Your task to perform on an android device: delete location history Image 0: 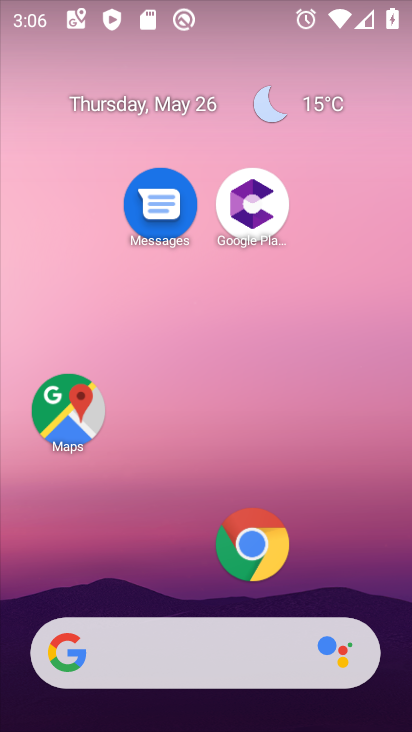
Step 0: click (64, 415)
Your task to perform on an android device: delete location history Image 1: 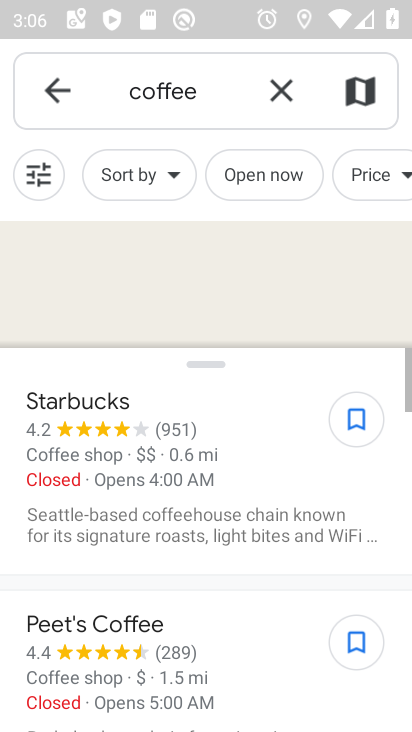
Step 1: click (47, 81)
Your task to perform on an android device: delete location history Image 2: 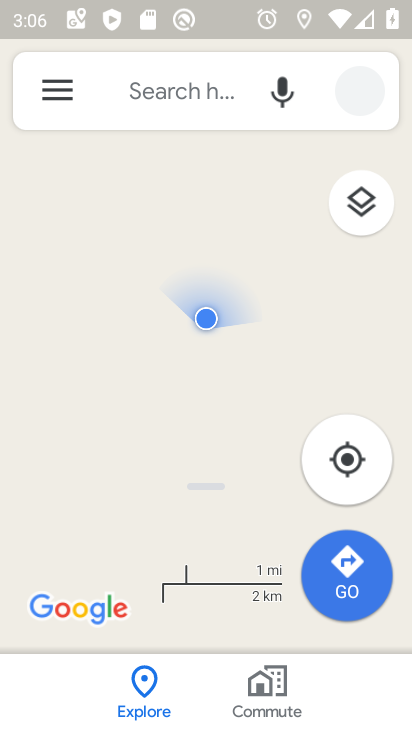
Step 2: click (47, 81)
Your task to perform on an android device: delete location history Image 3: 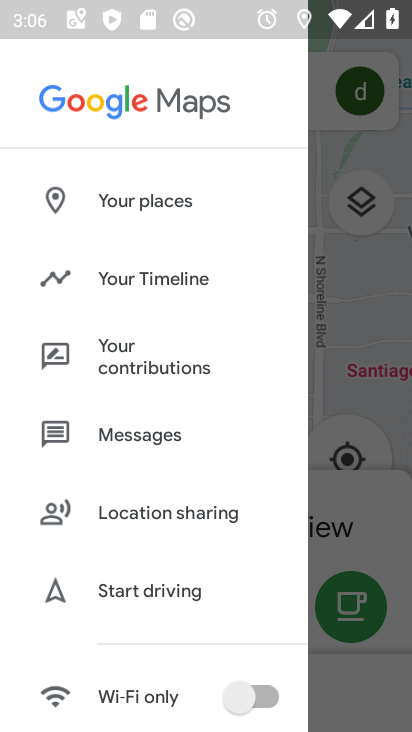
Step 3: click (152, 260)
Your task to perform on an android device: delete location history Image 4: 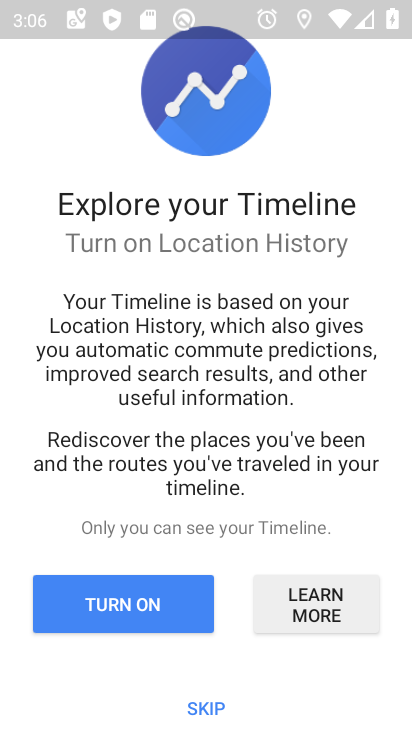
Step 4: click (123, 608)
Your task to perform on an android device: delete location history Image 5: 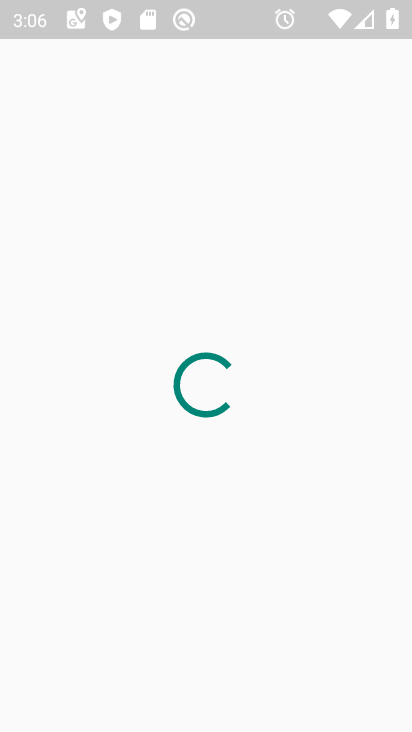
Step 5: click (387, 85)
Your task to perform on an android device: delete location history Image 6: 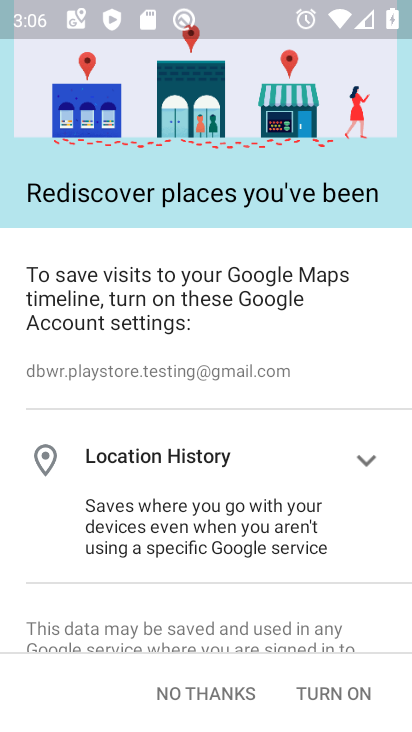
Step 6: click (358, 692)
Your task to perform on an android device: delete location history Image 7: 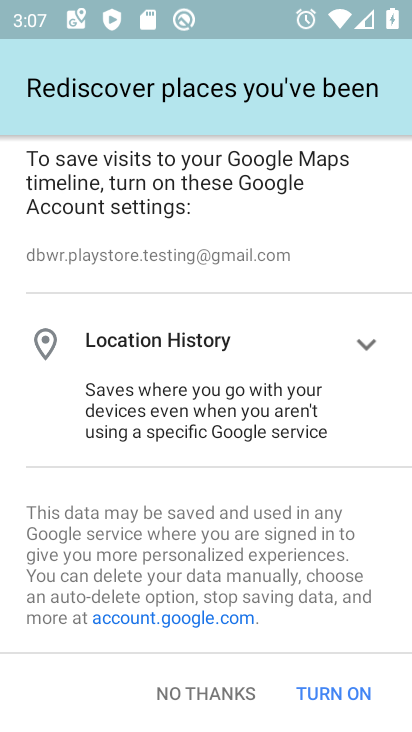
Step 7: click (327, 693)
Your task to perform on an android device: delete location history Image 8: 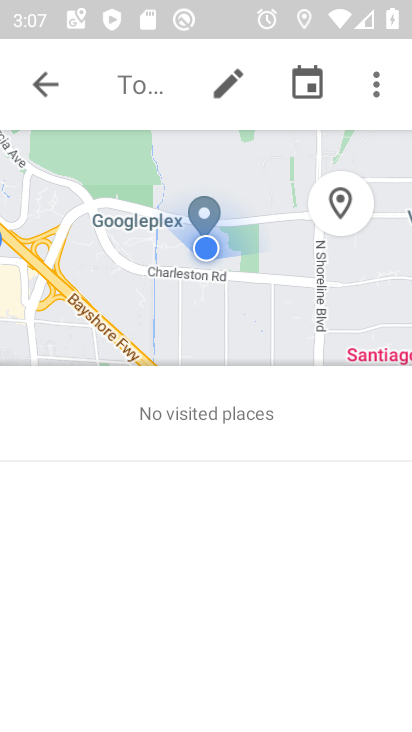
Step 8: click (386, 81)
Your task to perform on an android device: delete location history Image 9: 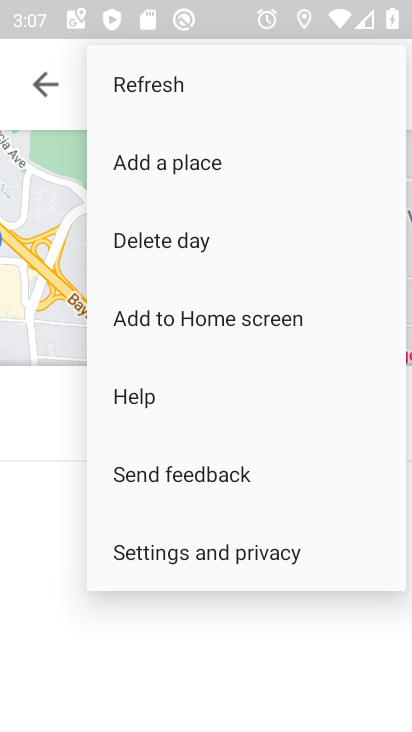
Step 9: click (188, 567)
Your task to perform on an android device: delete location history Image 10: 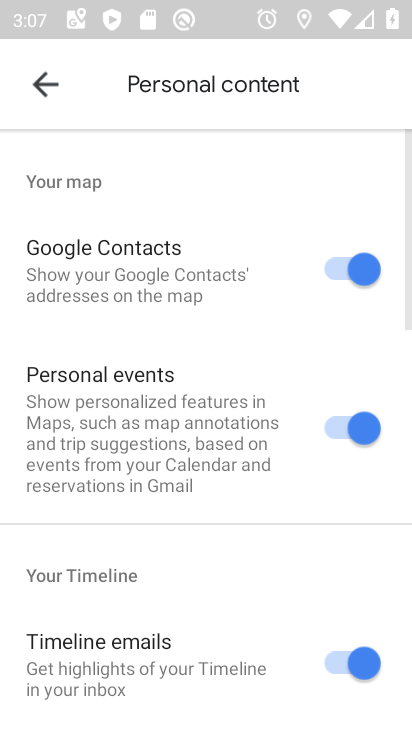
Step 10: drag from (188, 567) to (212, 201)
Your task to perform on an android device: delete location history Image 11: 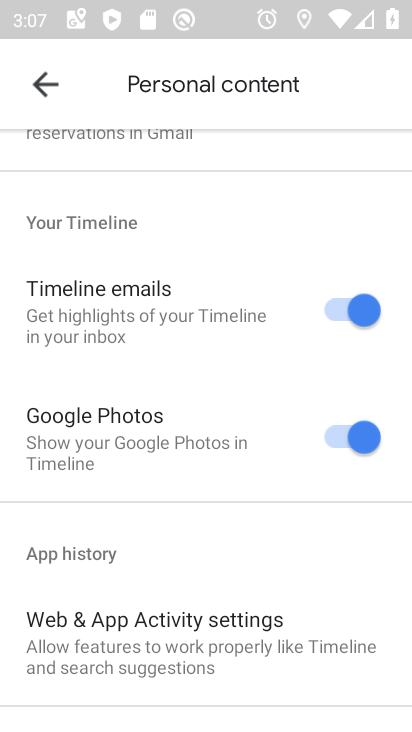
Step 11: drag from (105, 671) to (127, 196)
Your task to perform on an android device: delete location history Image 12: 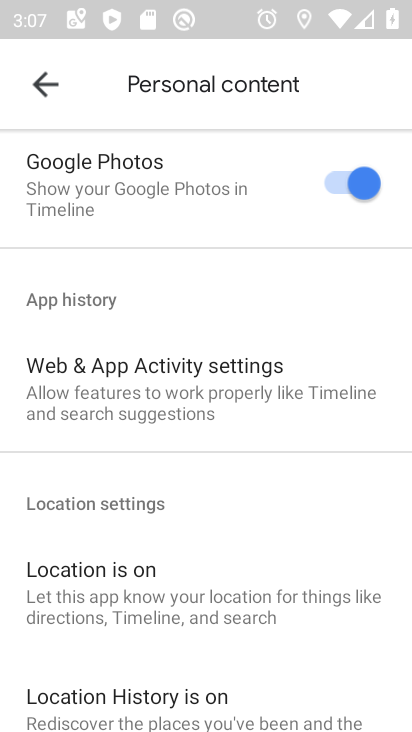
Step 12: drag from (133, 615) to (164, 161)
Your task to perform on an android device: delete location history Image 13: 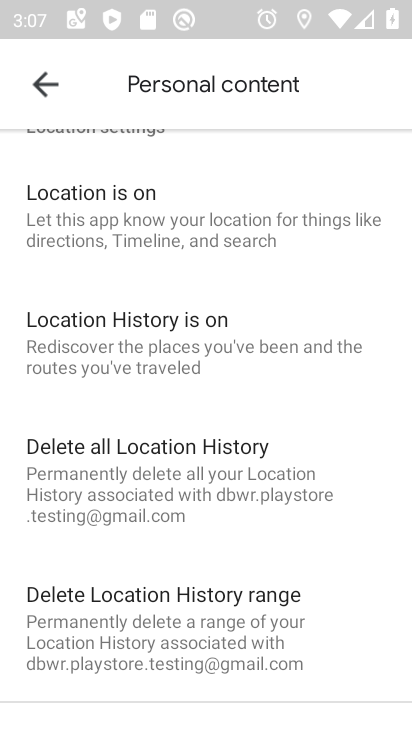
Step 13: click (112, 469)
Your task to perform on an android device: delete location history Image 14: 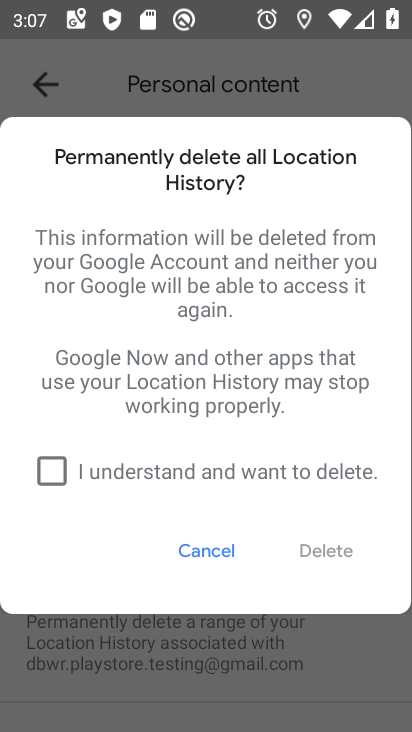
Step 14: click (69, 467)
Your task to perform on an android device: delete location history Image 15: 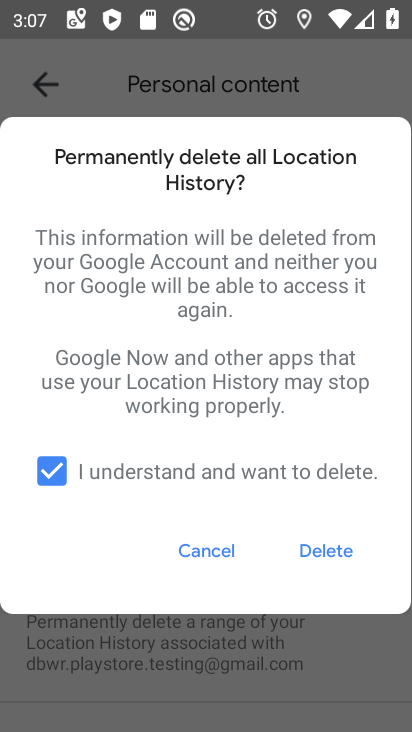
Step 15: click (308, 561)
Your task to perform on an android device: delete location history Image 16: 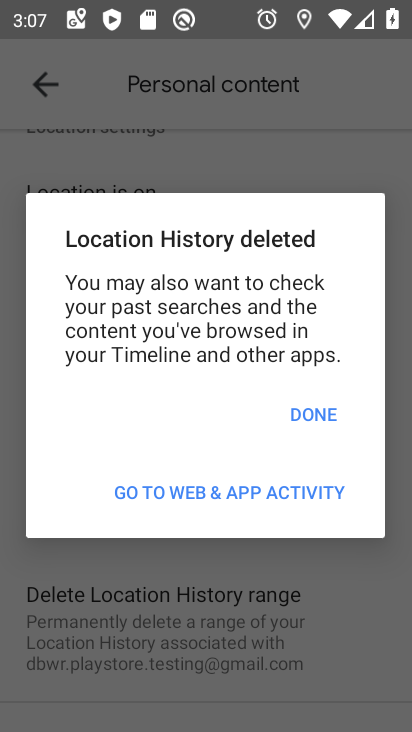
Step 16: click (306, 410)
Your task to perform on an android device: delete location history Image 17: 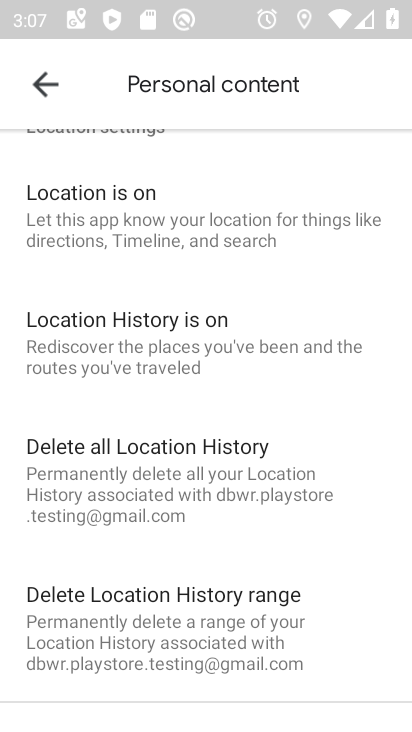
Step 17: task complete